Your task to perform on an android device: Open the calendar app, open the side menu, and click the "Day" option Image 0: 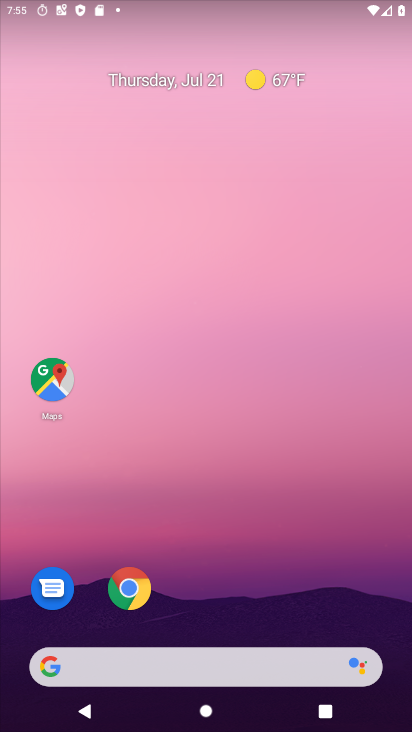
Step 0: drag from (159, 638) to (236, 153)
Your task to perform on an android device: Open the calendar app, open the side menu, and click the "Day" option Image 1: 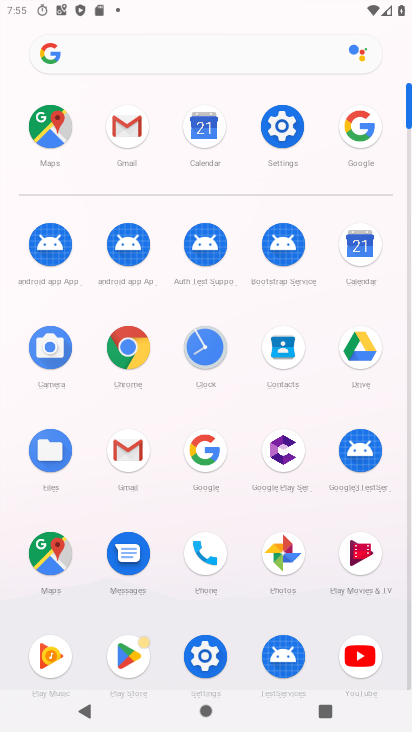
Step 1: click (365, 238)
Your task to perform on an android device: Open the calendar app, open the side menu, and click the "Day" option Image 2: 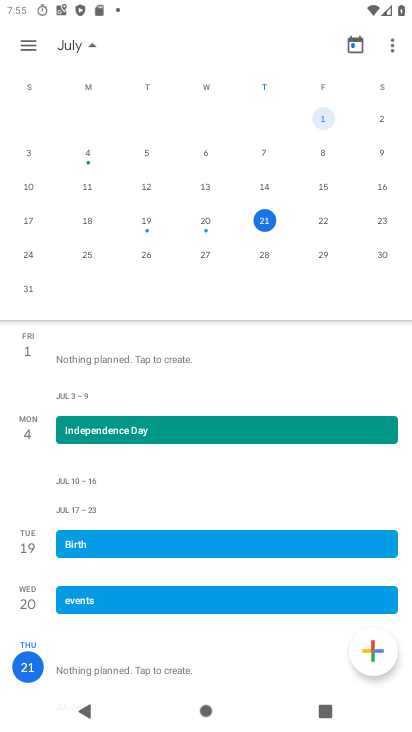
Step 2: click (27, 44)
Your task to perform on an android device: Open the calendar app, open the side menu, and click the "Day" option Image 3: 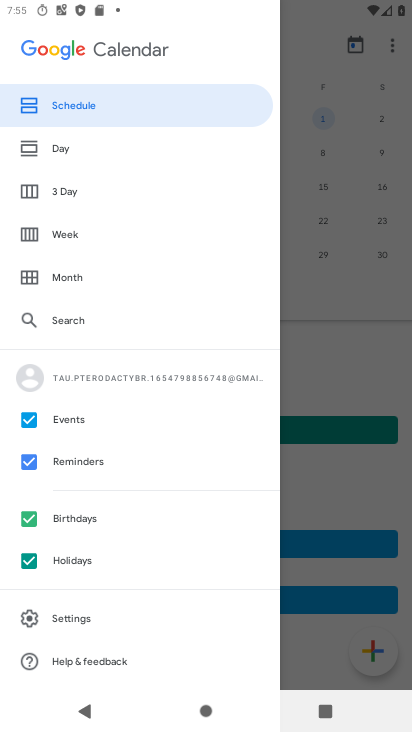
Step 3: click (70, 144)
Your task to perform on an android device: Open the calendar app, open the side menu, and click the "Day" option Image 4: 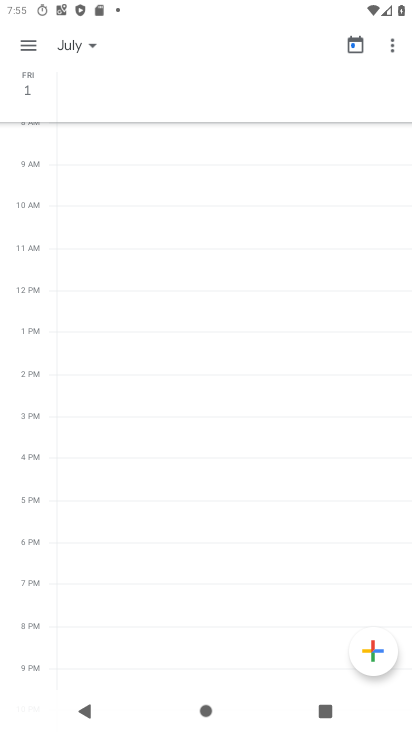
Step 4: task complete